Your task to perform on an android device: stop showing notifications on the lock screen Image 0: 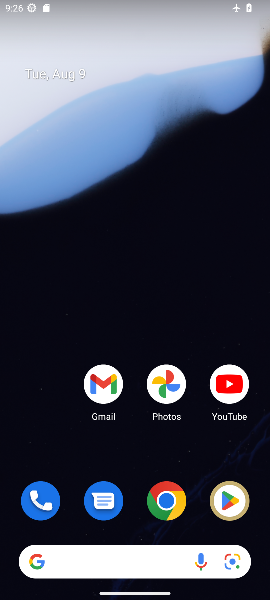
Step 0: drag from (140, 476) to (144, 138)
Your task to perform on an android device: stop showing notifications on the lock screen Image 1: 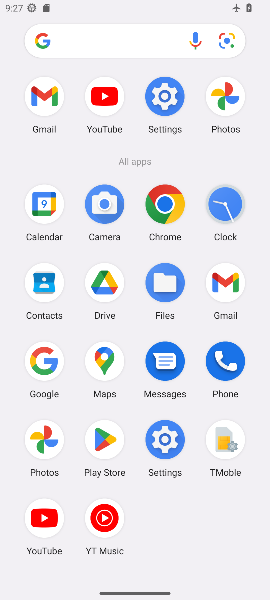
Step 1: click (165, 99)
Your task to perform on an android device: stop showing notifications on the lock screen Image 2: 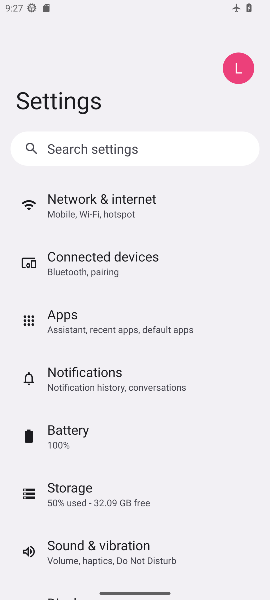
Step 2: click (97, 376)
Your task to perform on an android device: stop showing notifications on the lock screen Image 3: 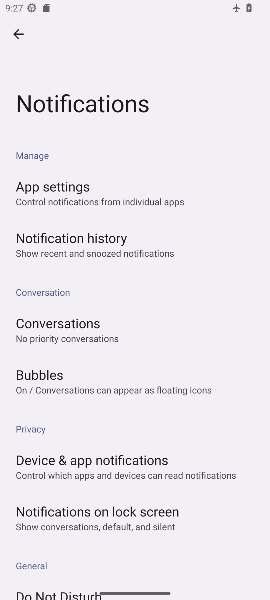
Step 3: click (102, 514)
Your task to perform on an android device: stop showing notifications on the lock screen Image 4: 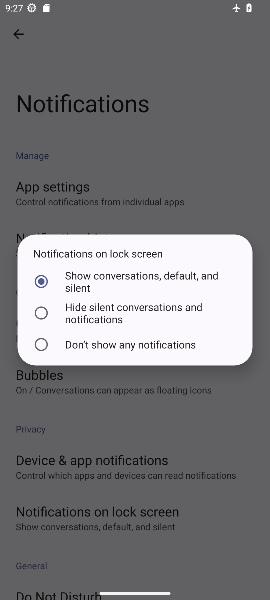
Step 4: click (39, 344)
Your task to perform on an android device: stop showing notifications on the lock screen Image 5: 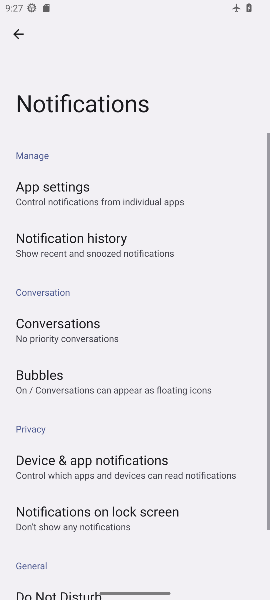
Step 5: task complete